Your task to perform on an android device: Turn on the flashlight Image 0: 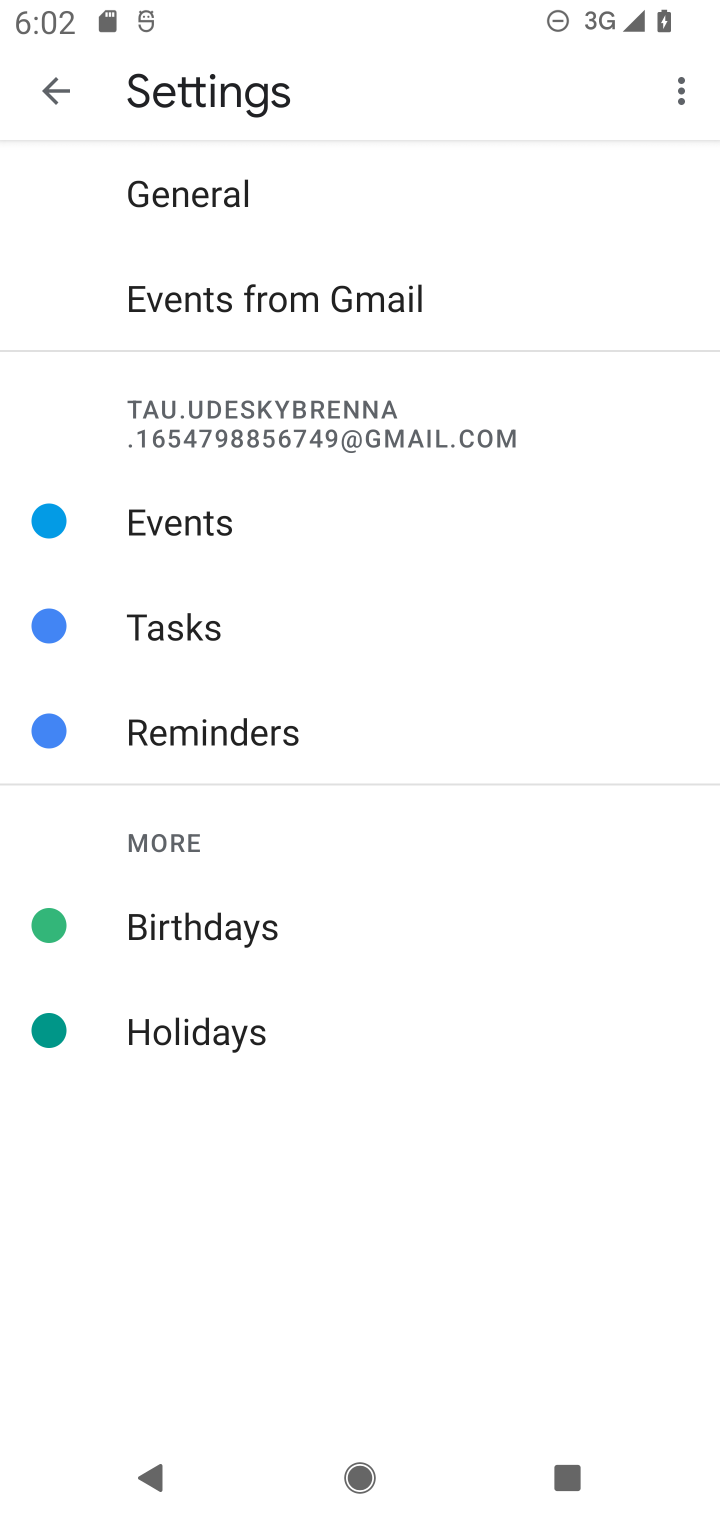
Step 0: press home button
Your task to perform on an android device: Turn on the flashlight Image 1: 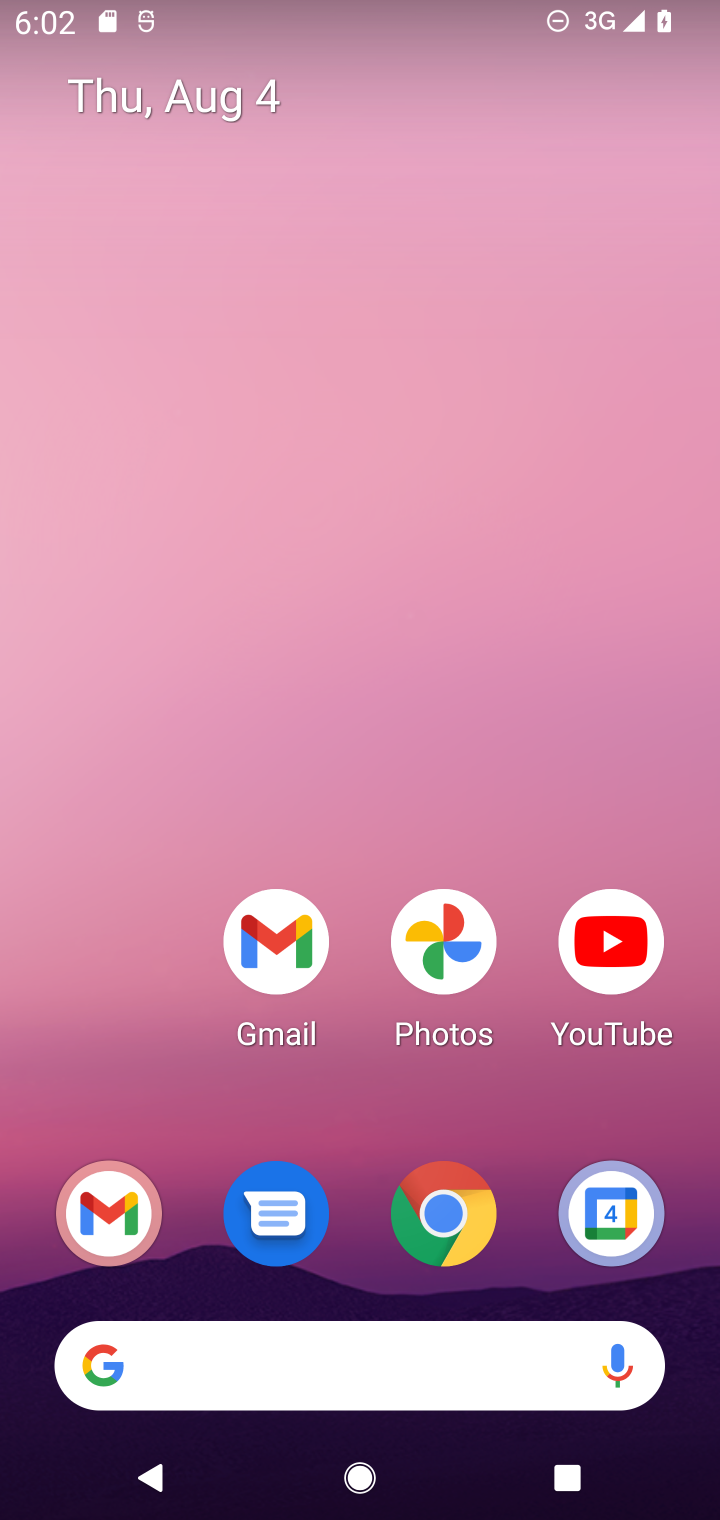
Step 1: task complete